Your task to perform on an android device: Search for Mexican restaurants on Maps Image 0: 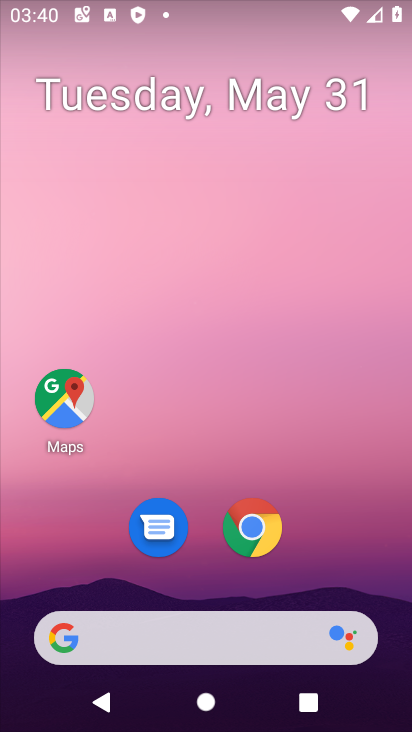
Step 0: click (65, 396)
Your task to perform on an android device: Search for Mexican restaurants on Maps Image 1: 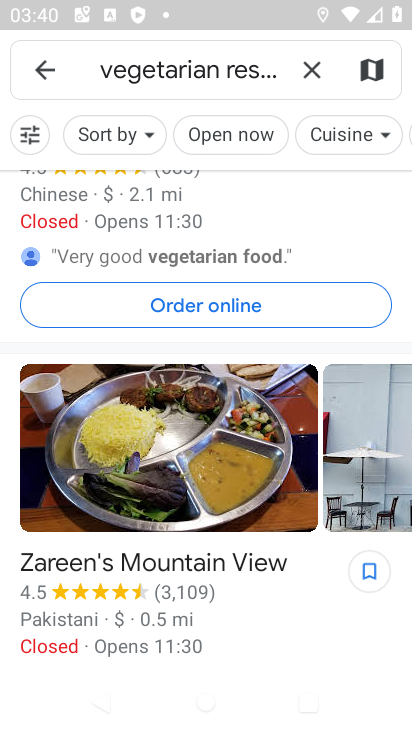
Step 1: click (313, 71)
Your task to perform on an android device: Search for Mexican restaurants on Maps Image 2: 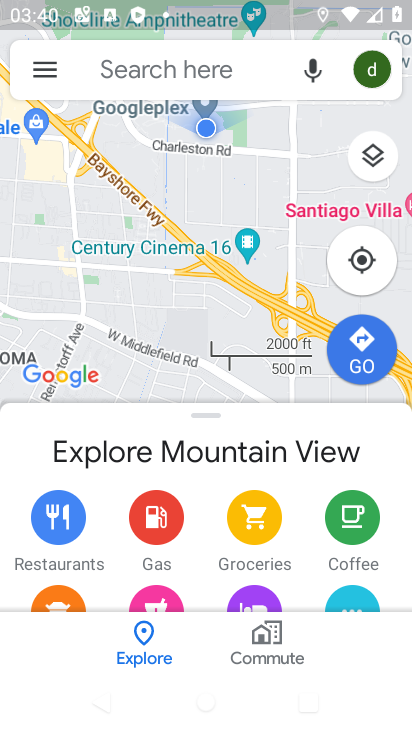
Step 2: click (170, 66)
Your task to perform on an android device: Search for Mexican restaurants on Maps Image 3: 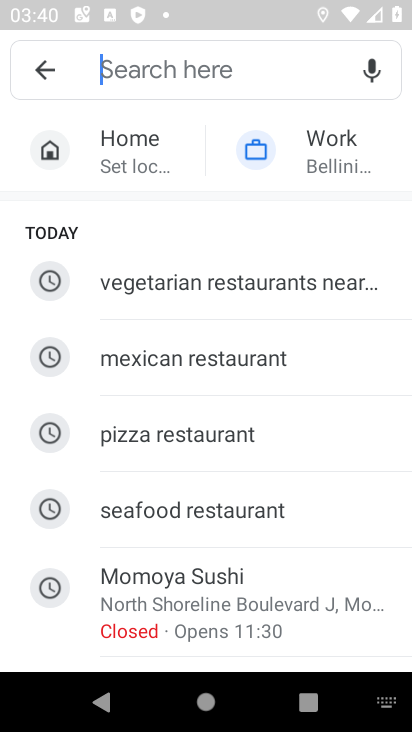
Step 3: type "mexican restaurants"
Your task to perform on an android device: Search for Mexican restaurants on Maps Image 4: 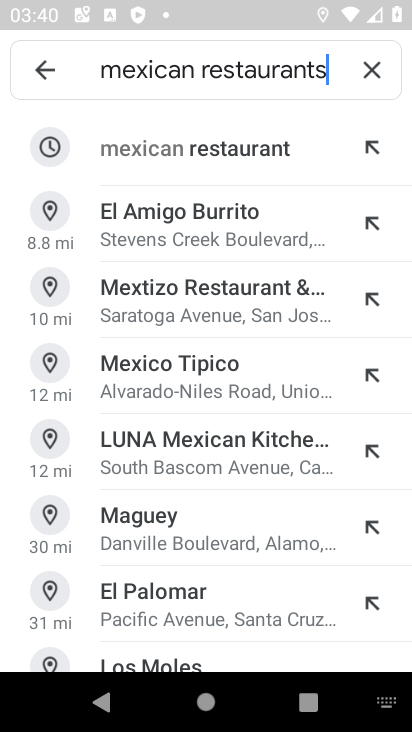
Step 4: click (174, 161)
Your task to perform on an android device: Search for Mexican restaurants on Maps Image 5: 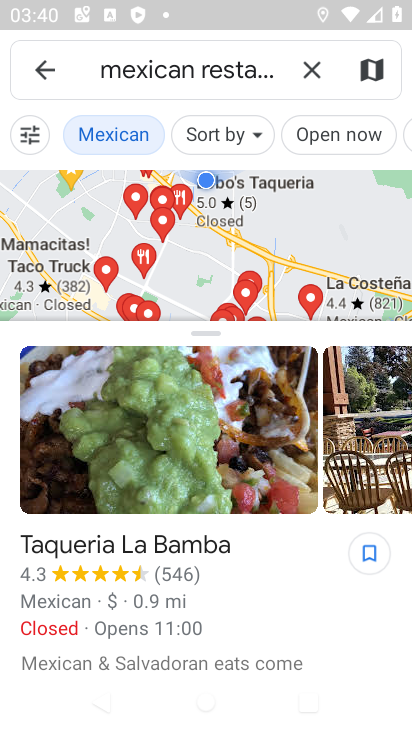
Step 5: task complete